Your task to perform on an android device: change timer sound Image 0: 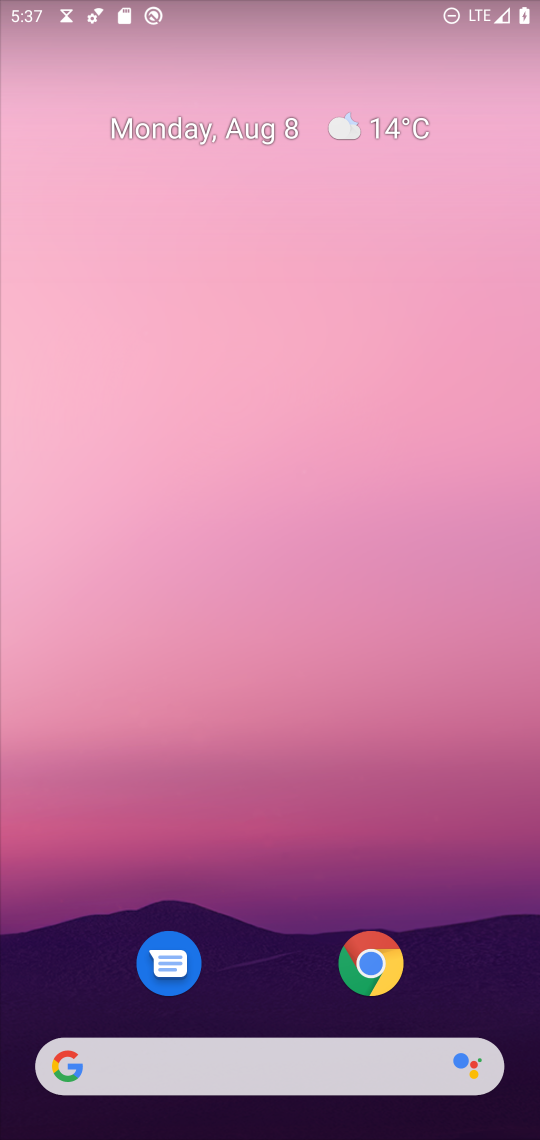
Step 0: drag from (247, 964) to (88, 210)
Your task to perform on an android device: change timer sound Image 1: 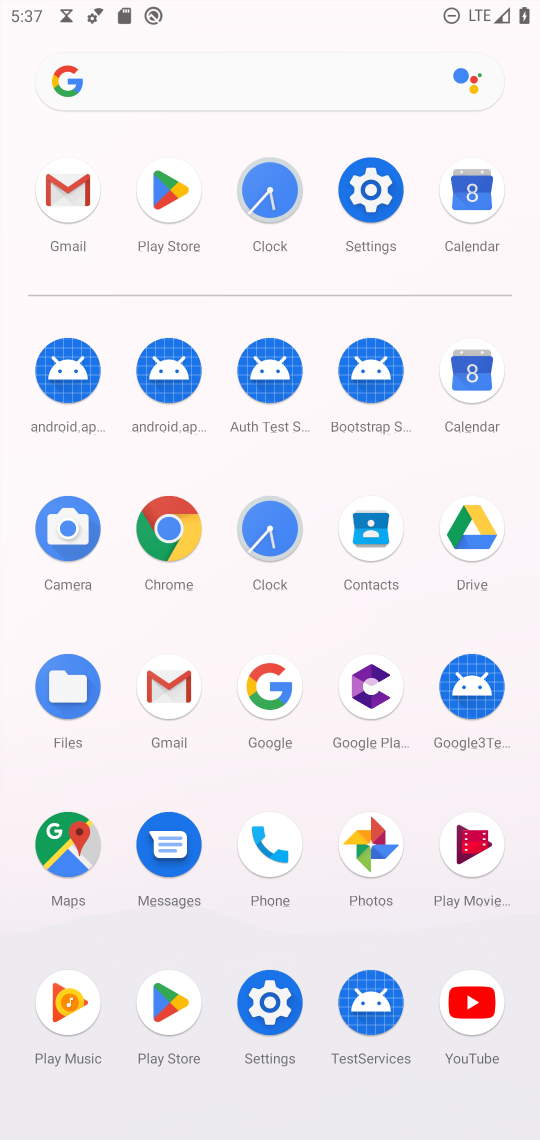
Step 1: click (259, 178)
Your task to perform on an android device: change timer sound Image 2: 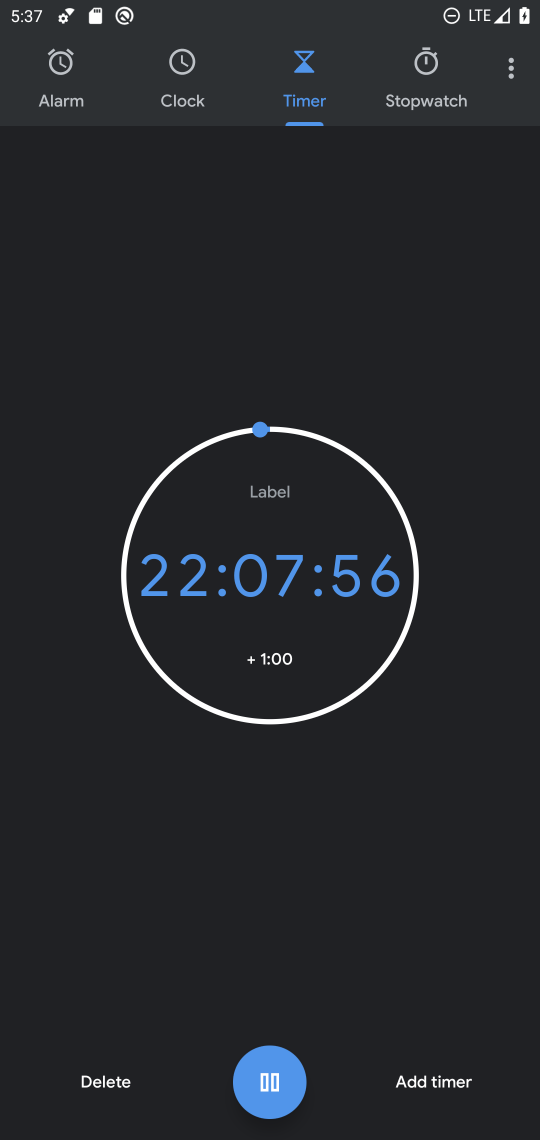
Step 2: click (506, 50)
Your task to perform on an android device: change timer sound Image 3: 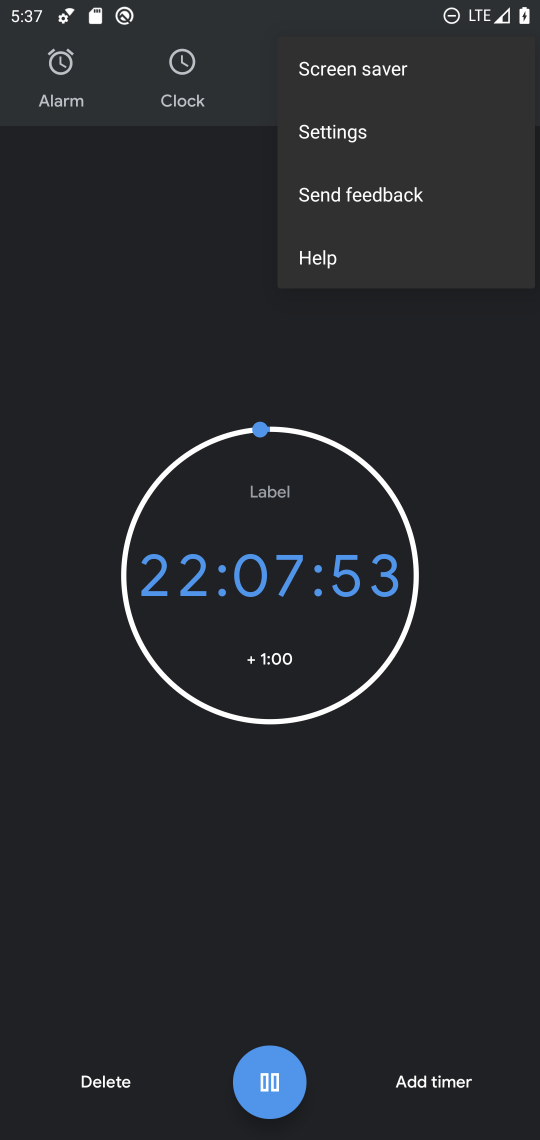
Step 3: click (337, 146)
Your task to perform on an android device: change timer sound Image 4: 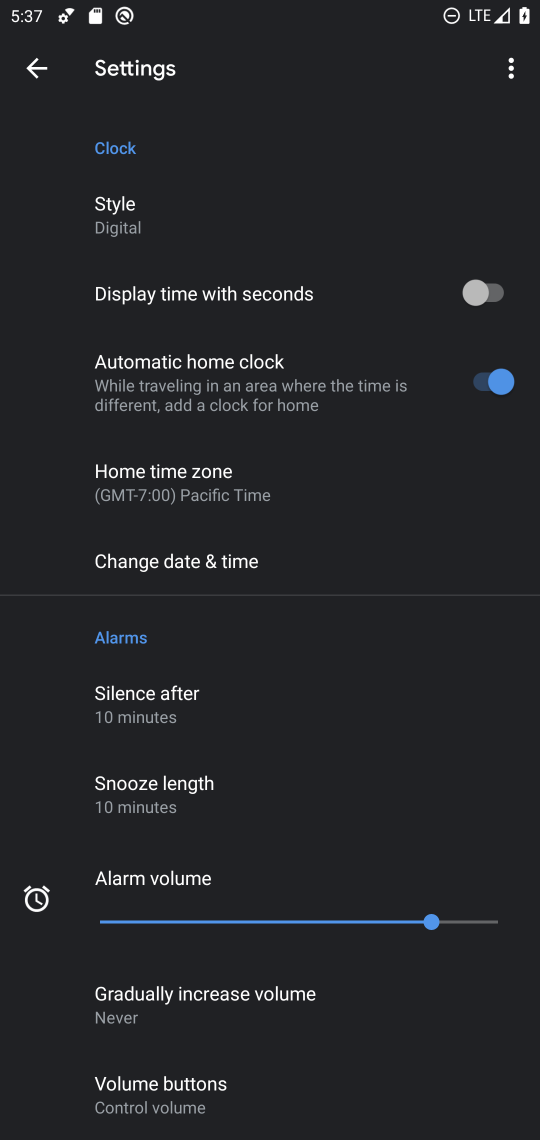
Step 4: drag from (258, 955) to (222, 493)
Your task to perform on an android device: change timer sound Image 5: 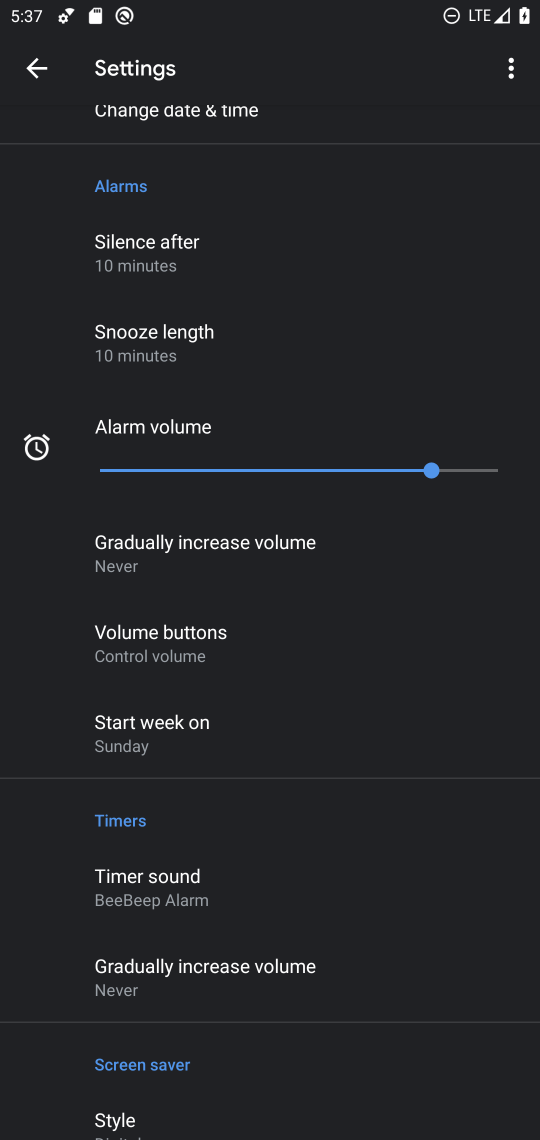
Step 5: click (186, 884)
Your task to perform on an android device: change timer sound Image 6: 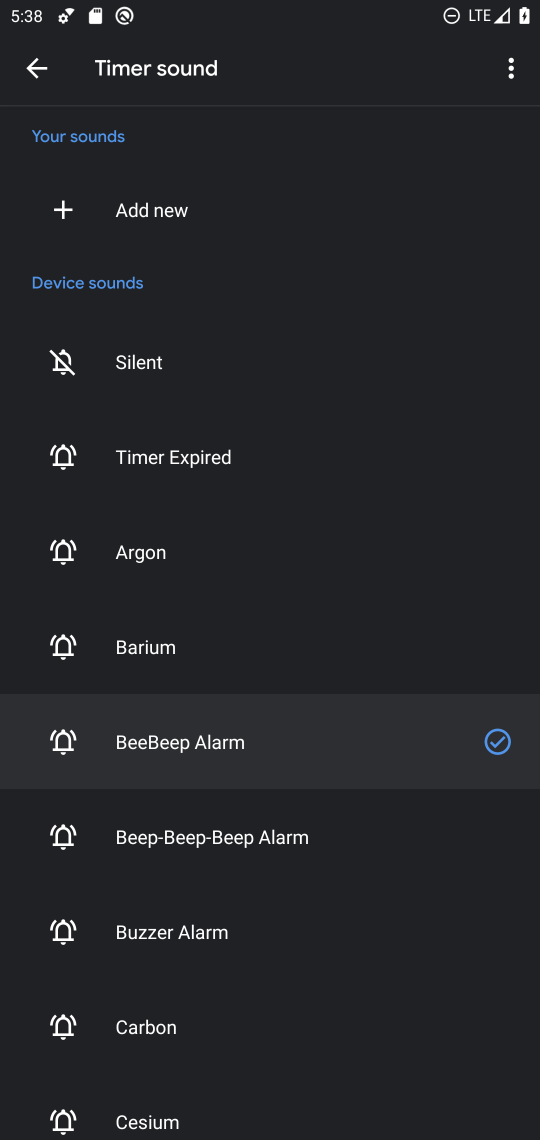
Step 6: click (229, 418)
Your task to perform on an android device: change timer sound Image 7: 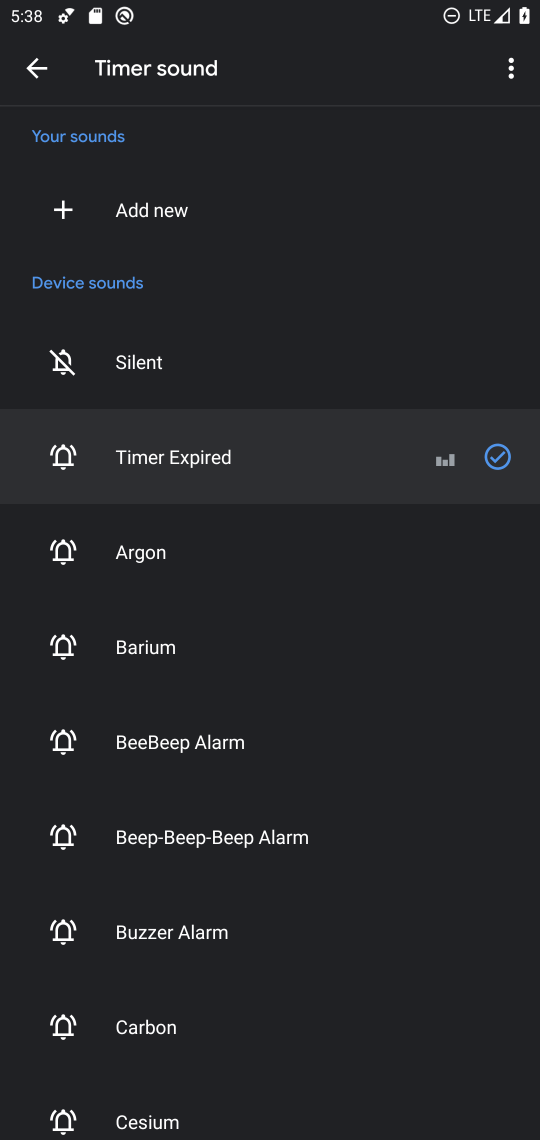
Step 7: task complete